Your task to perform on an android device: Go to Yahoo.com Image 0: 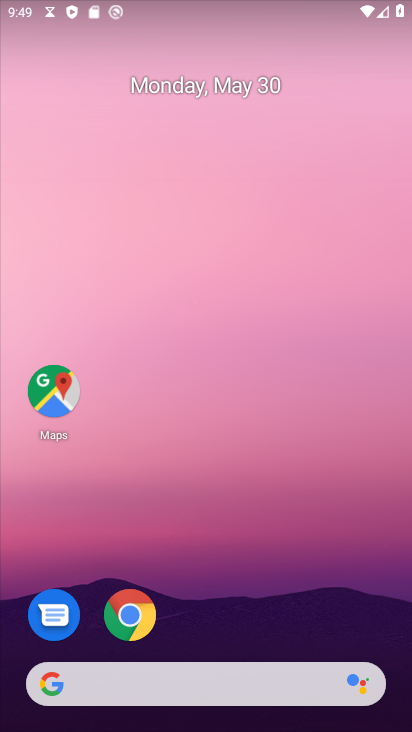
Step 0: click (129, 615)
Your task to perform on an android device: Go to Yahoo.com Image 1: 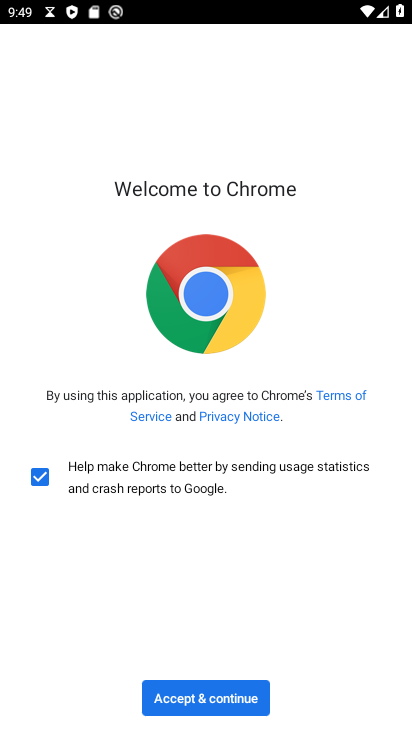
Step 1: click (189, 705)
Your task to perform on an android device: Go to Yahoo.com Image 2: 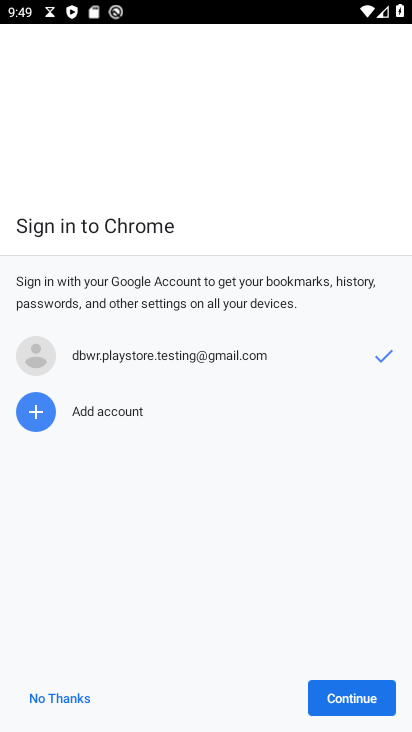
Step 2: click (359, 695)
Your task to perform on an android device: Go to Yahoo.com Image 3: 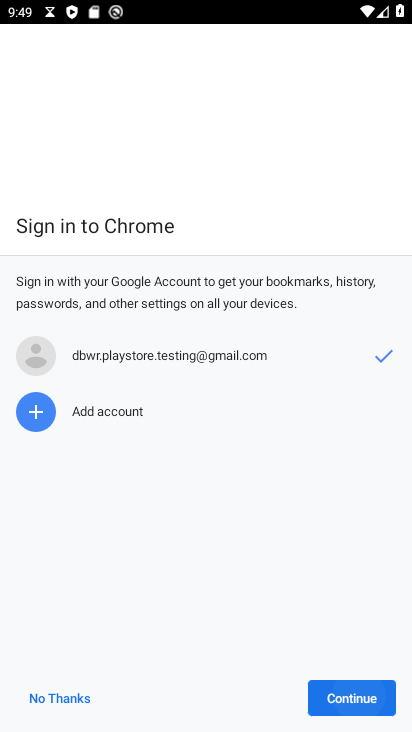
Step 3: click (359, 695)
Your task to perform on an android device: Go to Yahoo.com Image 4: 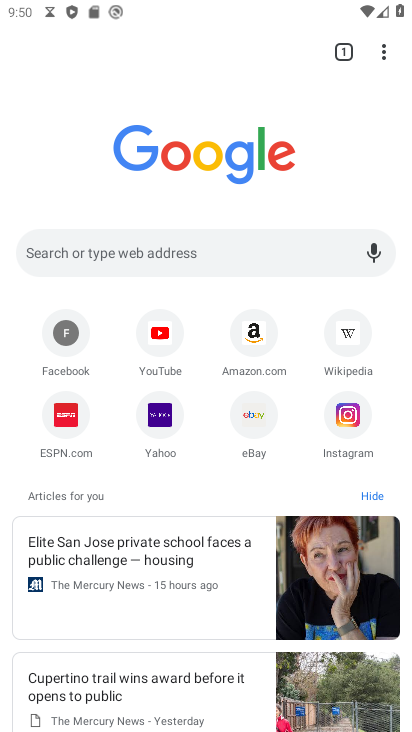
Step 4: click (160, 416)
Your task to perform on an android device: Go to Yahoo.com Image 5: 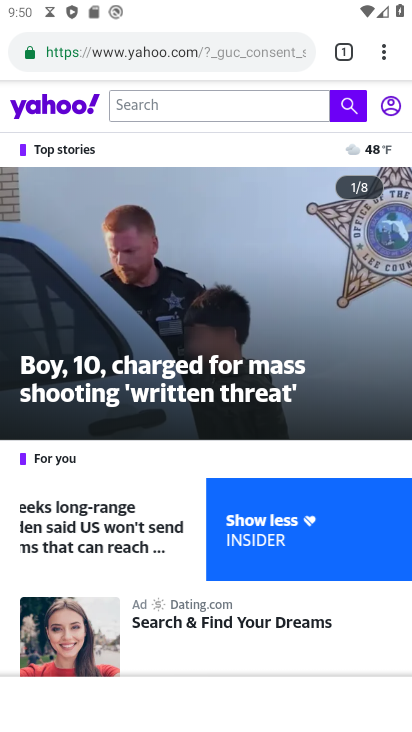
Step 5: task complete